Your task to perform on an android device: Search for pizza restaurants on Maps Image 0: 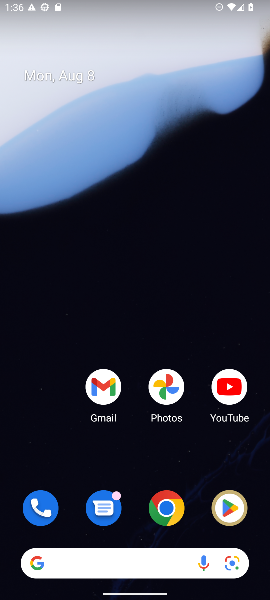
Step 0: drag from (152, 369) to (155, 179)
Your task to perform on an android device: Search for pizza restaurants on Maps Image 1: 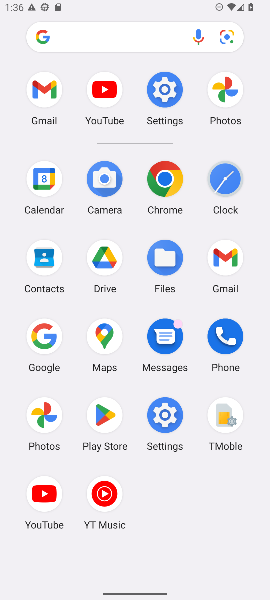
Step 1: click (103, 349)
Your task to perform on an android device: Search for pizza restaurants on Maps Image 2: 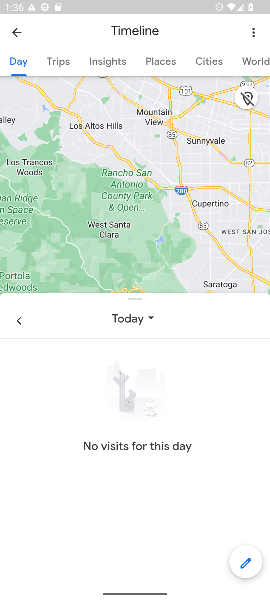
Step 2: click (13, 28)
Your task to perform on an android device: Search for pizza restaurants on Maps Image 3: 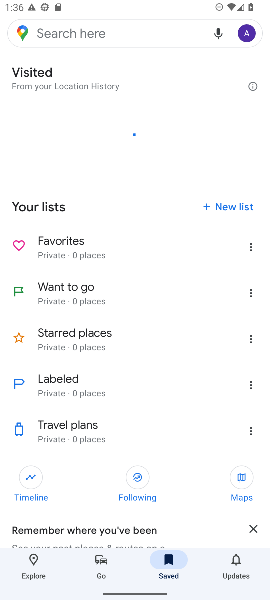
Step 3: click (103, 32)
Your task to perform on an android device: Search for pizza restaurants on Maps Image 4: 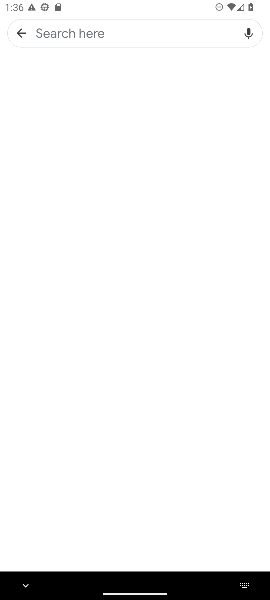
Step 4: type " pizza restaurants"
Your task to perform on an android device: Search for pizza restaurants on Maps Image 5: 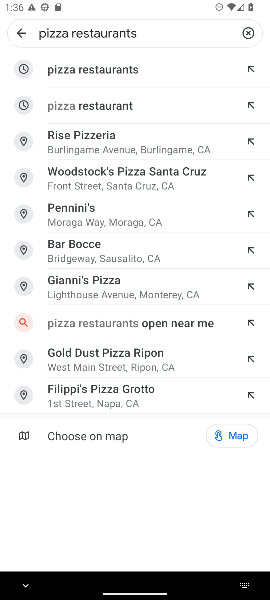
Step 5: click (112, 64)
Your task to perform on an android device: Search for pizza restaurants on Maps Image 6: 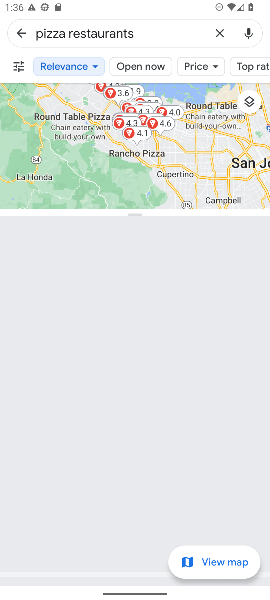
Step 6: task complete